Your task to perform on an android device: add a contact Image 0: 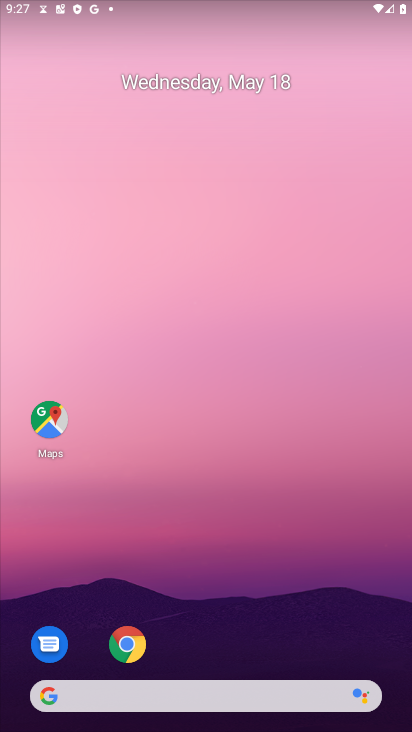
Step 0: drag from (252, 616) to (265, 243)
Your task to perform on an android device: add a contact Image 1: 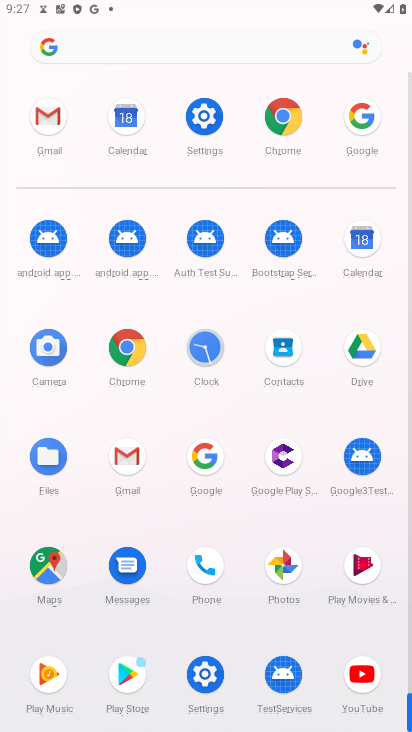
Step 1: click (284, 349)
Your task to perform on an android device: add a contact Image 2: 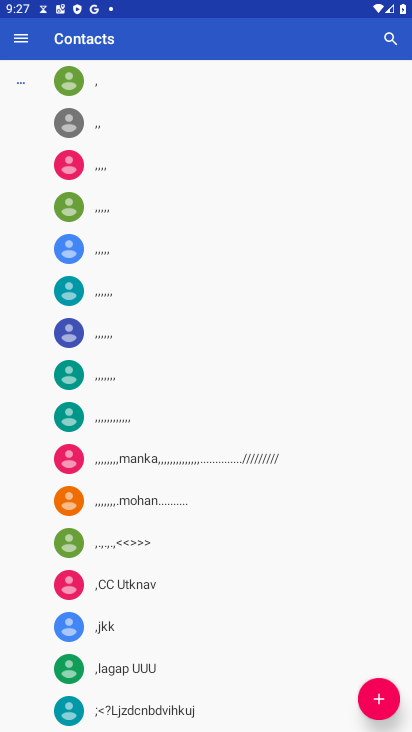
Step 2: click (379, 696)
Your task to perform on an android device: add a contact Image 3: 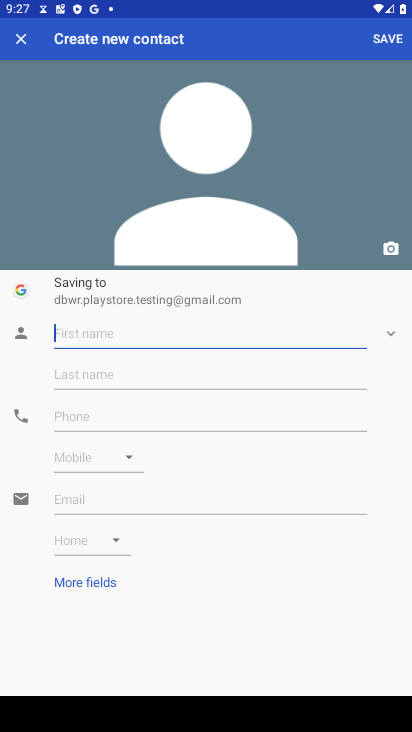
Step 3: click (120, 324)
Your task to perform on an android device: add a contact Image 4: 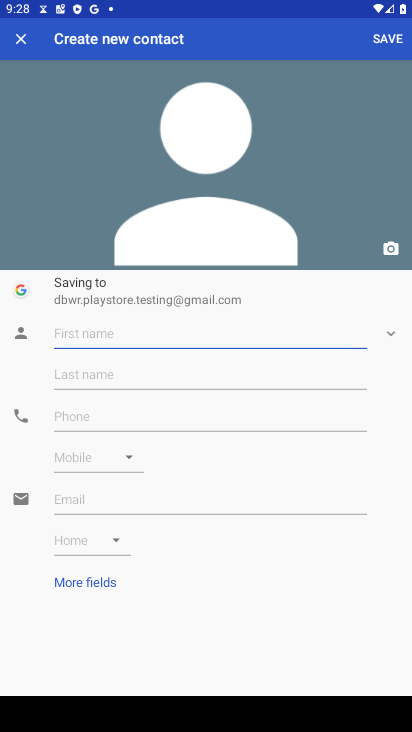
Step 4: type "Chandravibhushan"
Your task to perform on an android device: add a contact Image 5: 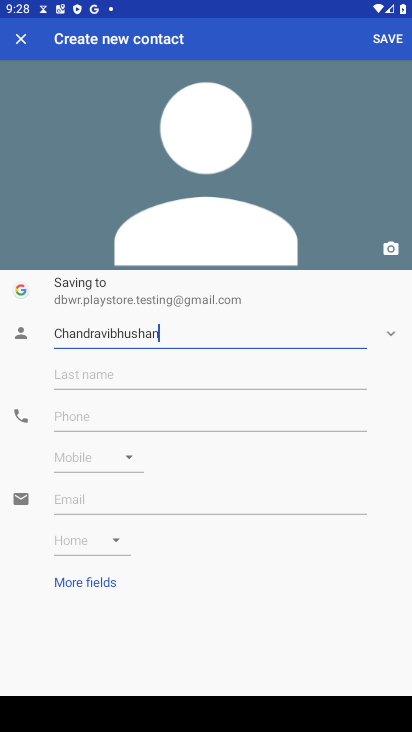
Step 5: type ""
Your task to perform on an android device: add a contact Image 6: 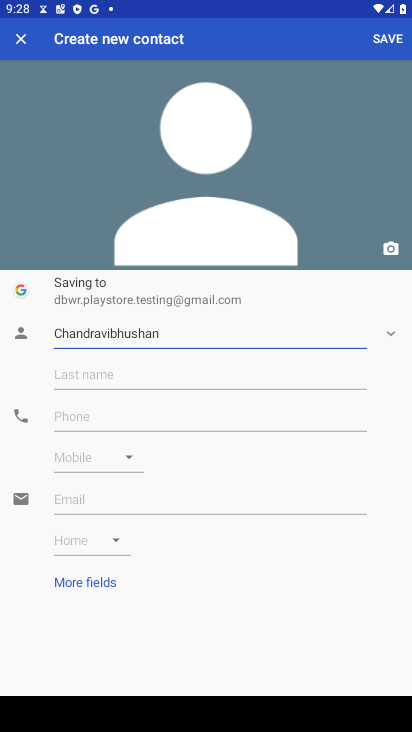
Step 6: click (177, 378)
Your task to perform on an android device: add a contact Image 7: 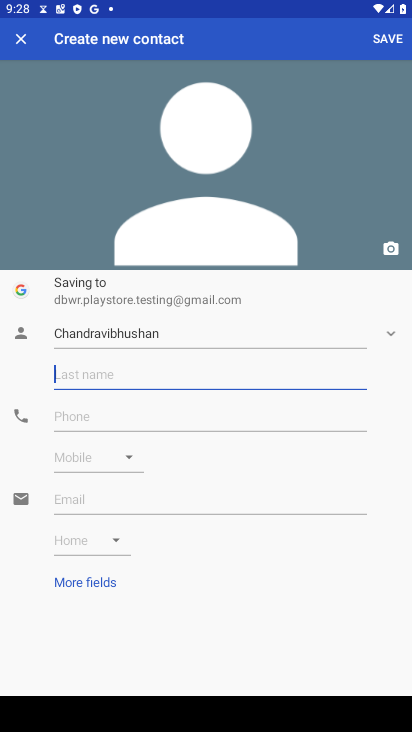
Step 7: type "Batham"
Your task to perform on an android device: add a contact Image 8: 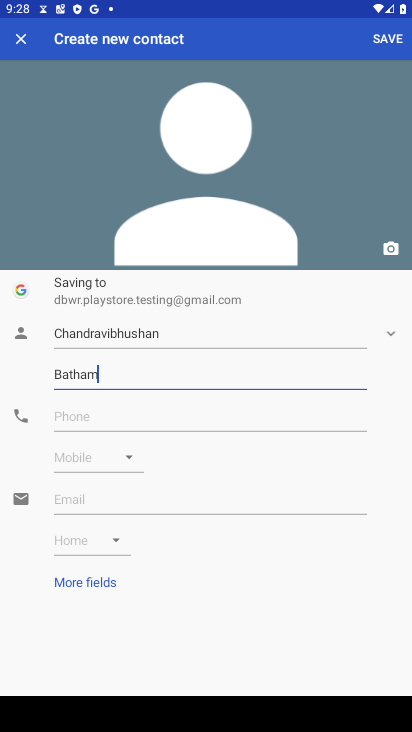
Step 8: click (119, 419)
Your task to perform on an android device: add a contact Image 9: 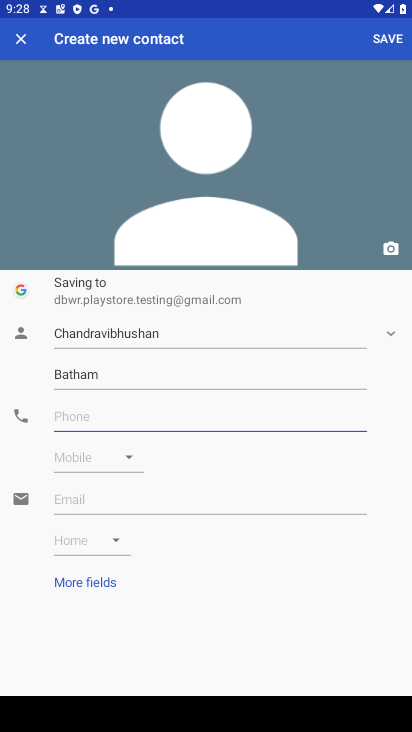
Step 9: type "09876541345"
Your task to perform on an android device: add a contact Image 10: 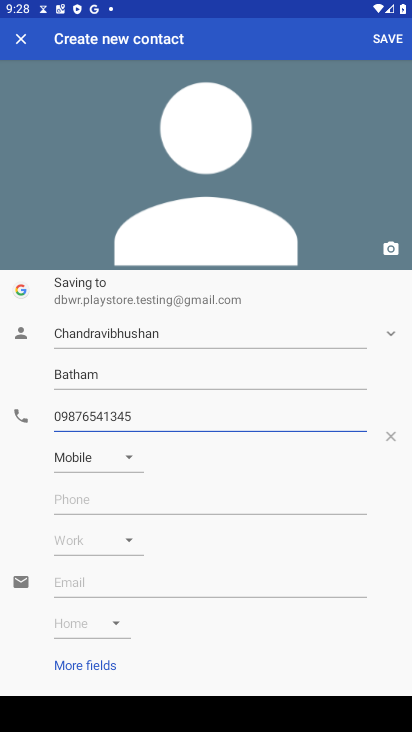
Step 10: click (393, 40)
Your task to perform on an android device: add a contact Image 11: 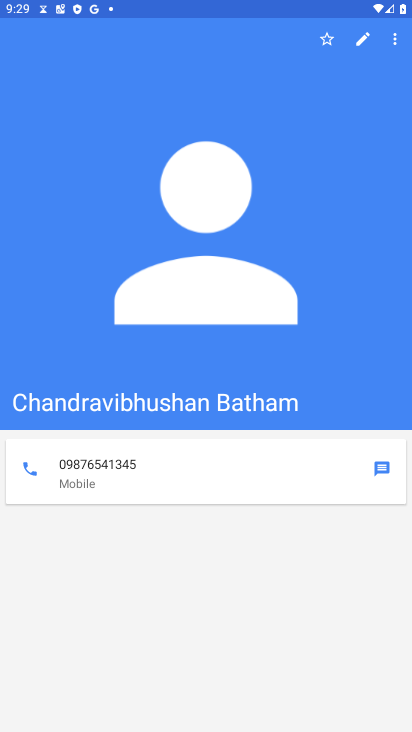
Step 11: task complete